Your task to perform on an android device: Check the news Image 0: 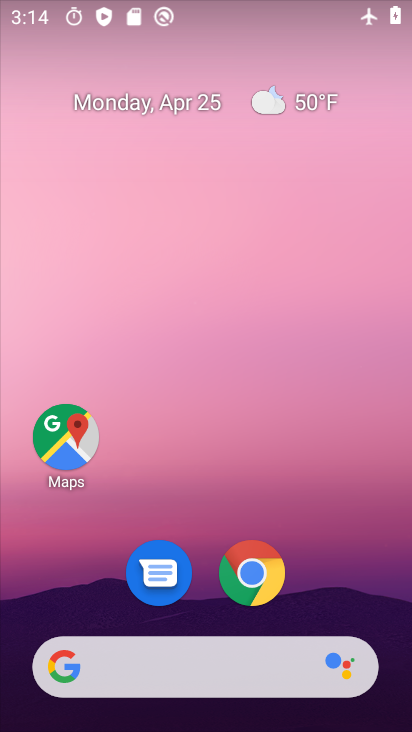
Step 0: drag from (315, 510) to (363, 15)
Your task to perform on an android device: Check the news Image 1: 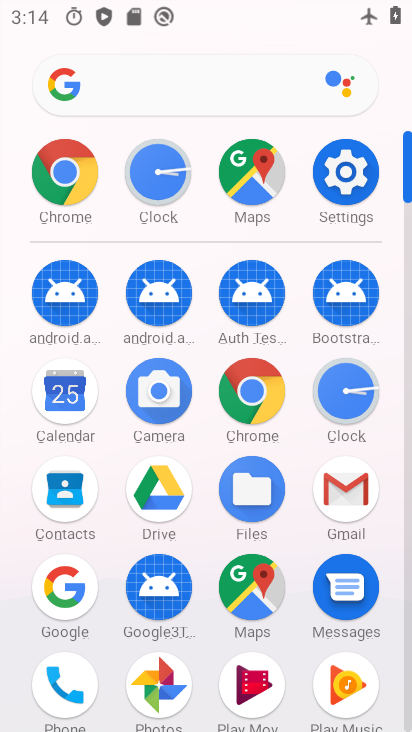
Step 1: click (70, 167)
Your task to perform on an android device: Check the news Image 2: 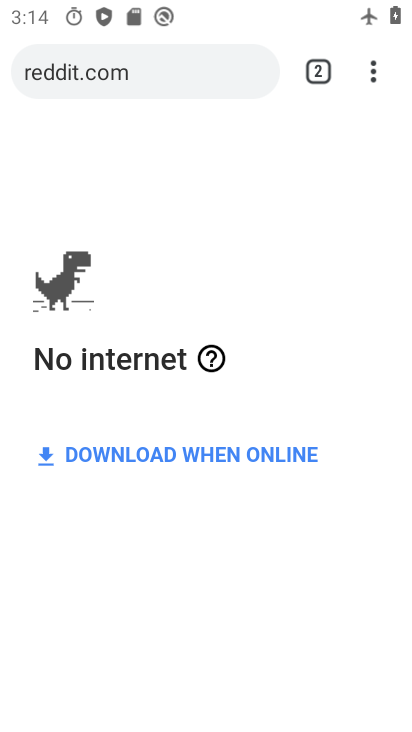
Step 2: task complete